Your task to perform on an android device: change notifications settings Image 0: 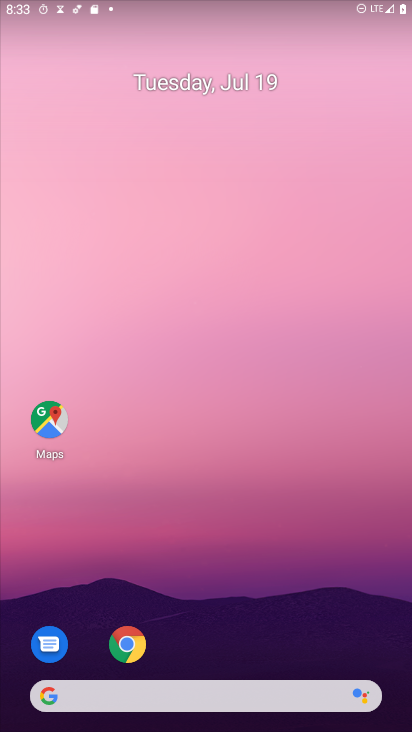
Step 0: drag from (21, 710) to (246, 258)
Your task to perform on an android device: change notifications settings Image 1: 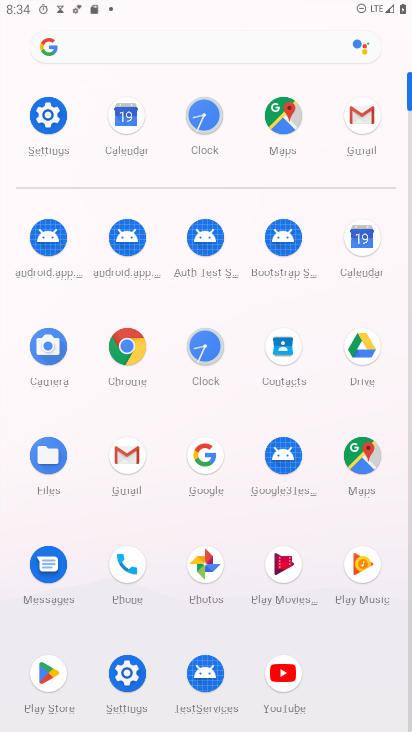
Step 1: click (113, 690)
Your task to perform on an android device: change notifications settings Image 2: 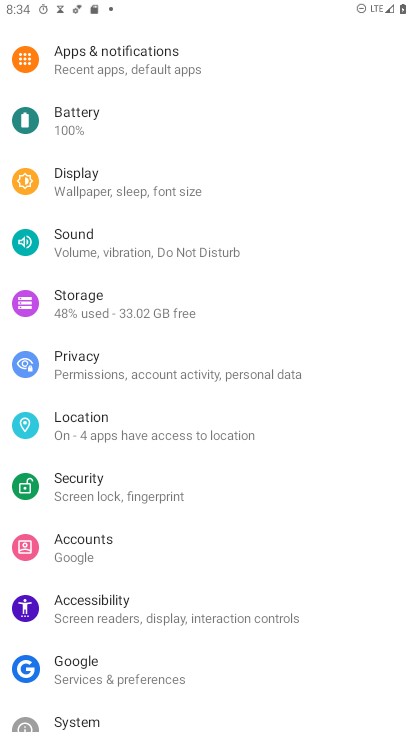
Step 2: click (133, 59)
Your task to perform on an android device: change notifications settings Image 3: 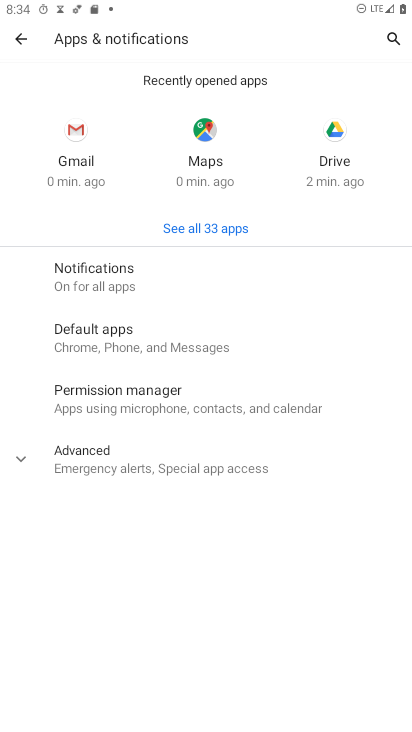
Step 3: task complete